Your task to perform on an android device: Open calendar and show me the second week of next month Image 0: 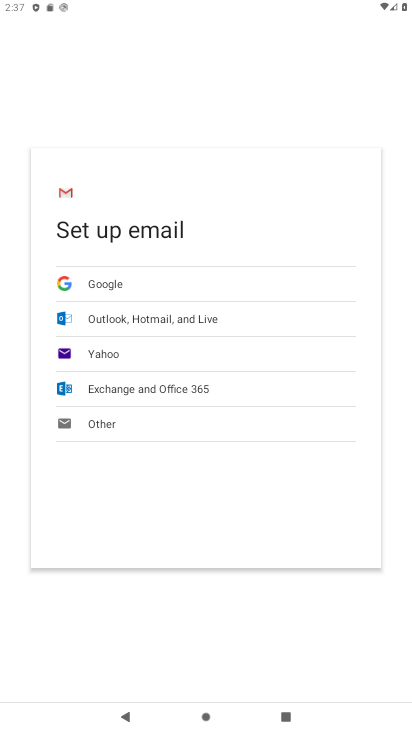
Step 0: press home button
Your task to perform on an android device: Open calendar and show me the second week of next month Image 1: 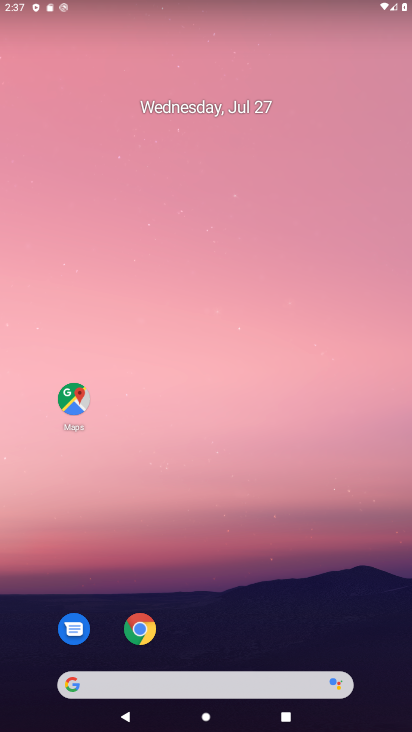
Step 1: drag from (323, 543) to (336, 286)
Your task to perform on an android device: Open calendar and show me the second week of next month Image 2: 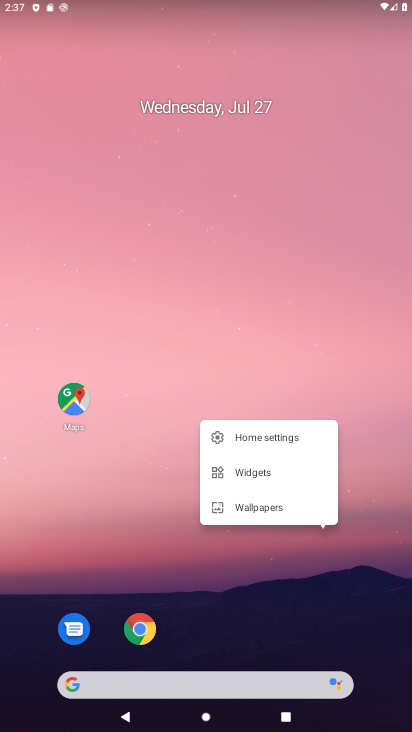
Step 2: click (266, 606)
Your task to perform on an android device: Open calendar and show me the second week of next month Image 3: 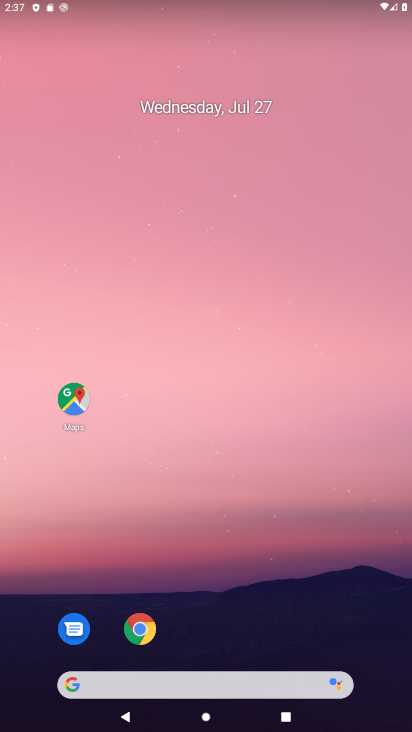
Step 3: drag from (266, 606) to (270, 272)
Your task to perform on an android device: Open calendar and show me the second week of next month Image 4: 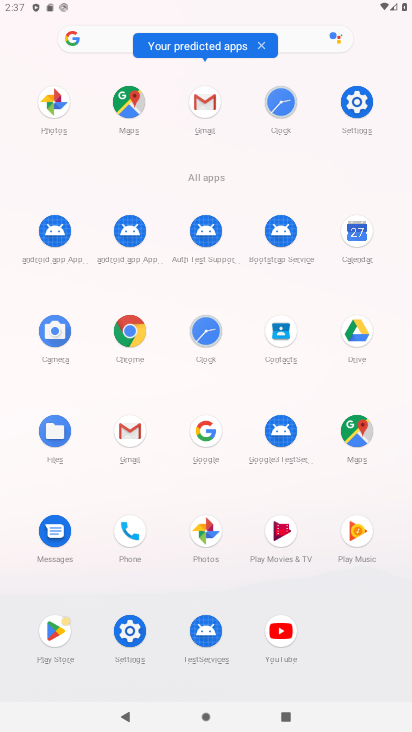
Step 4: click (349, 236)
Your task to perform on an android device: Open calendar and show me the second week of next month Image 5: 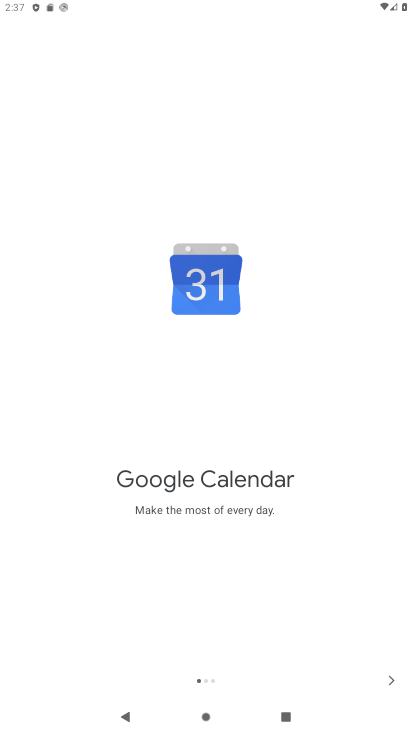
Step 5: click (387, 681)
Your task to perform on an android device: Open calendar and show me the second week of next month Image 6: 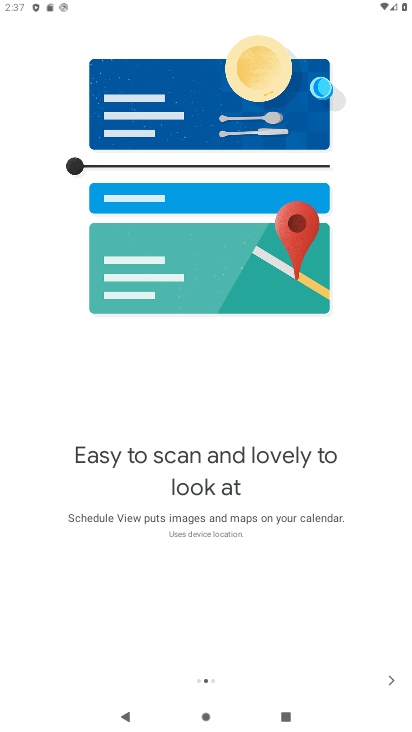
Step 6: click (387, 681)
Your task to perform on an android device: Open calendar and show me the second week of next month Image 7: 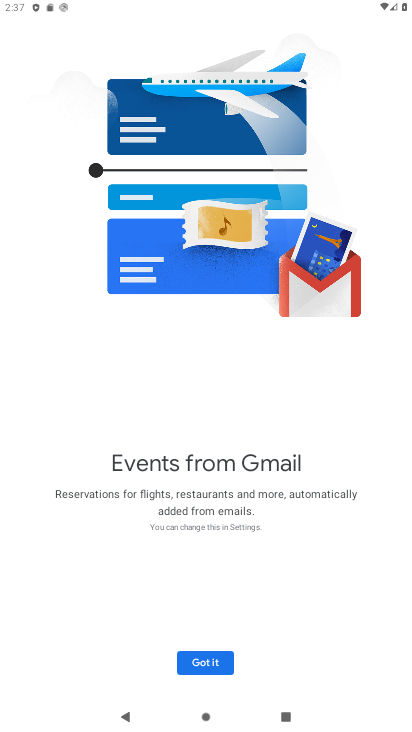
Step 7: click (387, 681)
Your task to perform on an android device: Open calendar and show me the second week of next month Image 8: 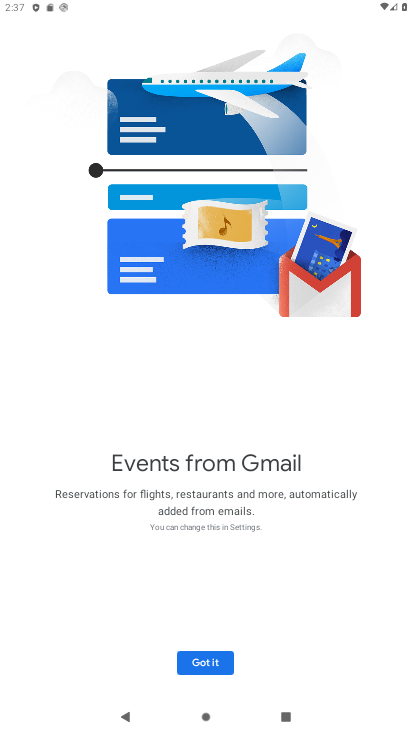
Step 8: click (205, 672)
Your task to perform on an android device: Open calendar and show me the second week of next month Image 9: 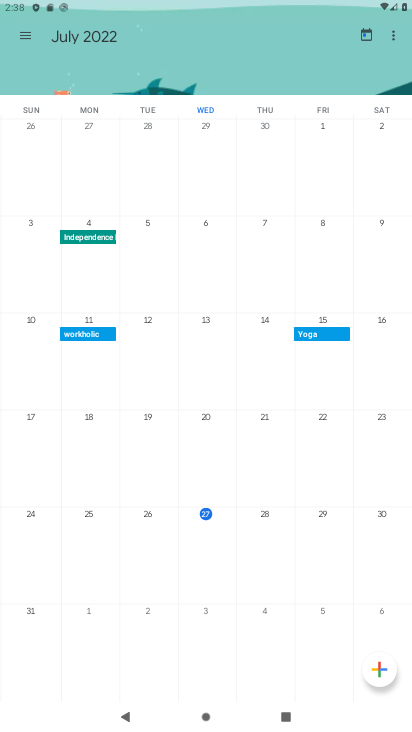
Step 9: task complete